Your task to perform on an android device: set an alarm Image 0: 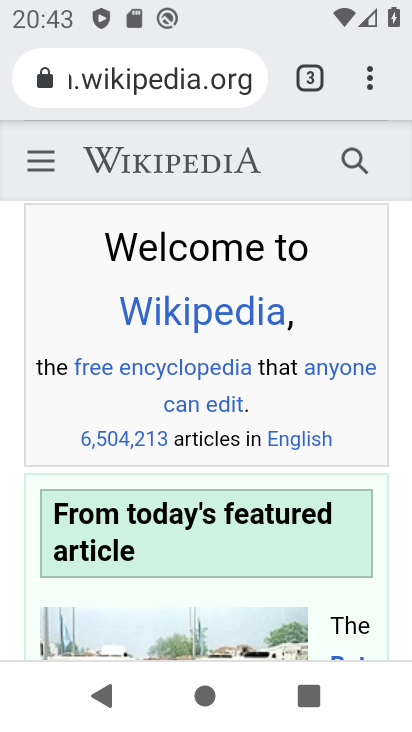
Step 0: press home button
Your task to perform on an android device: set an alarm Image 1: 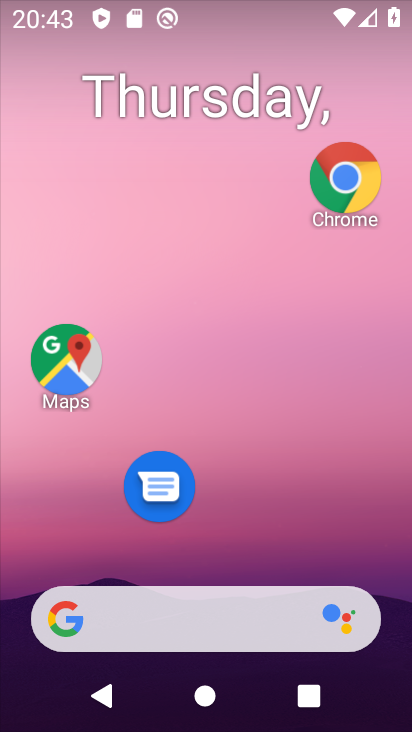
Step 1: drag from (209, 559) to (126, 21)
Your task to perform on an android device: set an alarm Image 2: 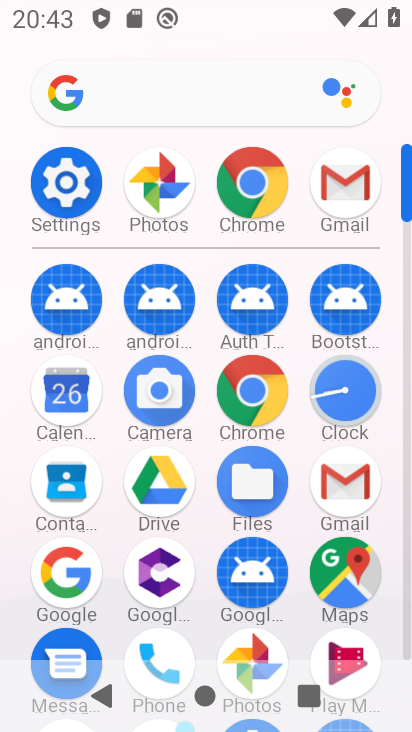
Step 2: click (349, 405)
Your task to perform on an android device: set an alarm Image 3: 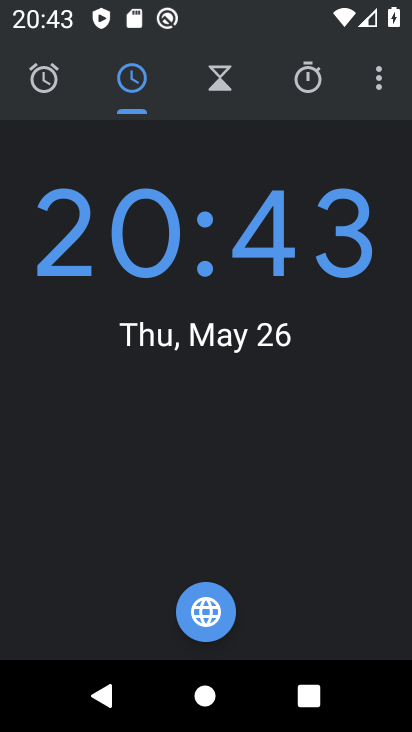
Step 3: click (18, 72)
Your task to perform on an android device: set an alarm Image 4: 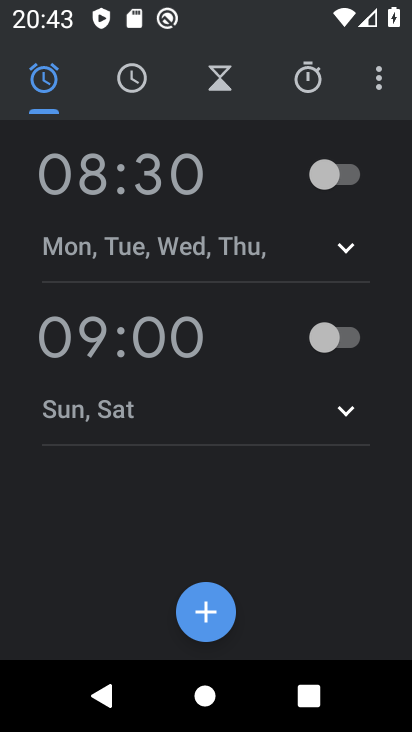
Step 4: click (217, 582)
Your task to perform on an android device: set an alarm Image 5: 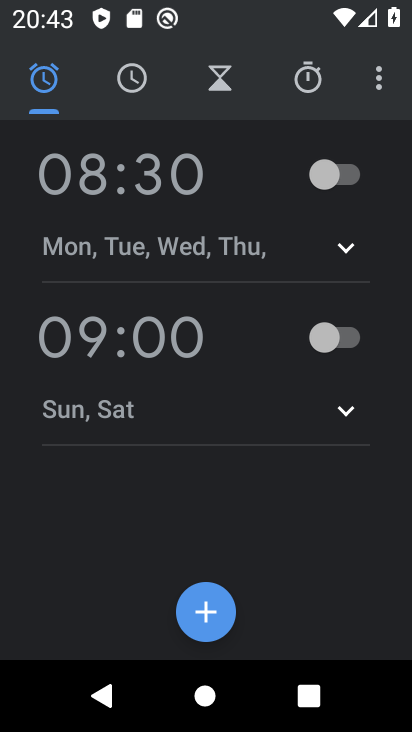
Step 5: click (209, 608)
Your task to perform on an android device: set an alarm Image 6: 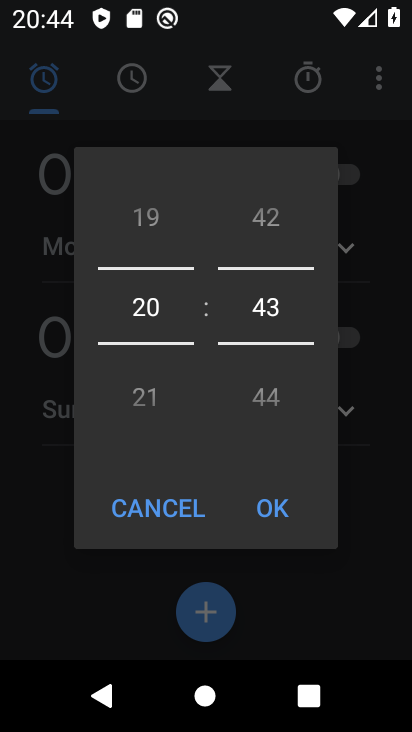
Step 6: click (266, 518)
Your task to perform on an android device: set an alarm Image 7: 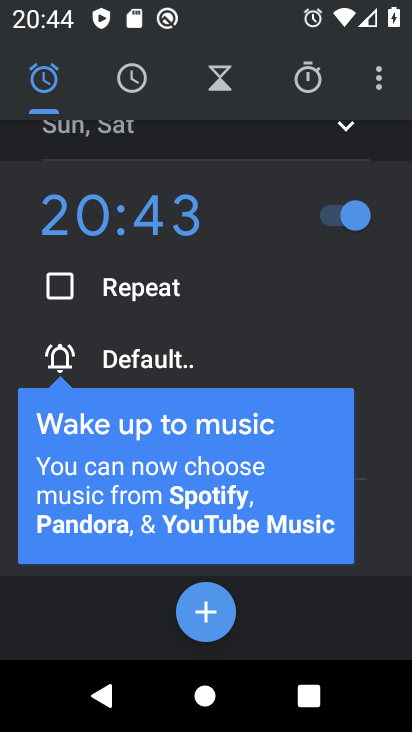
Step 7: task complete